Your task to perform on an android device: Open network settings Image 0: 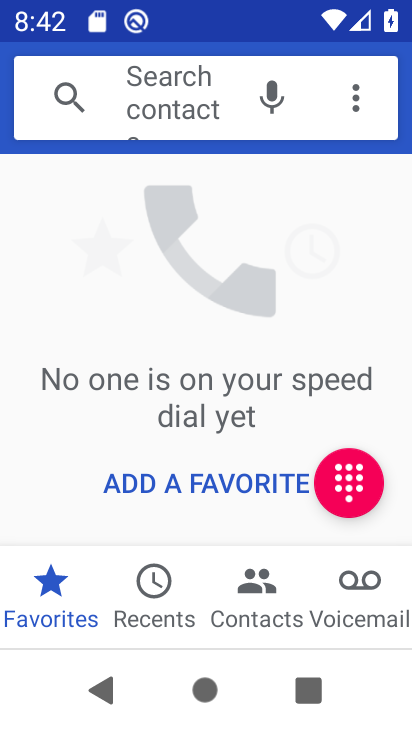
Step 0: press home button
Your task to perform on an android device: Open network settings Image 1: 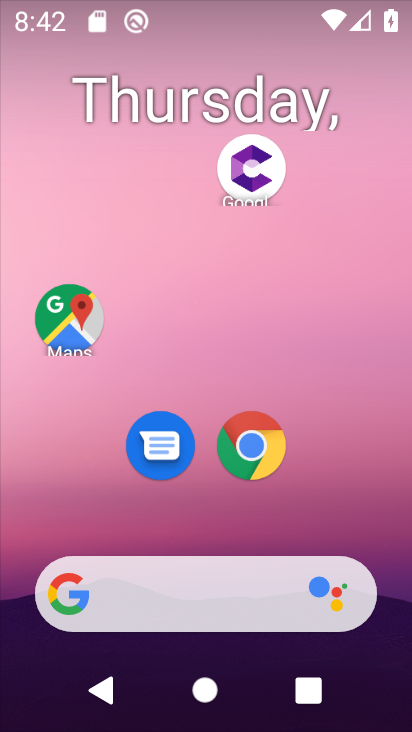
Step 1: drag from (218, 409) to (214, 6)
Your task to perform on an android device: Open network settings Image 2: 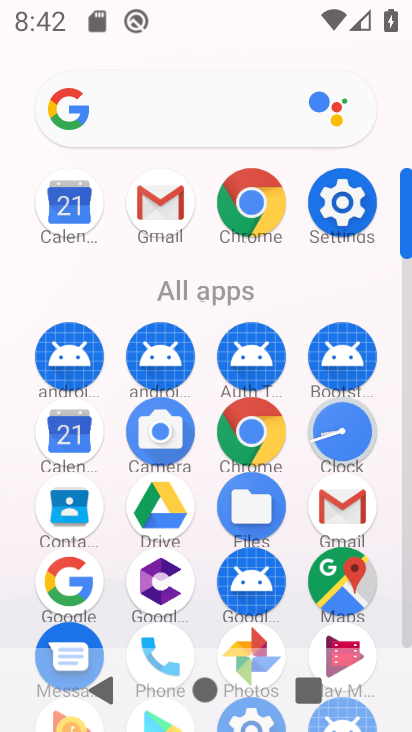
Step 2: click (346, 204)
Your task to perform on an android device: Open network settings Image 3: 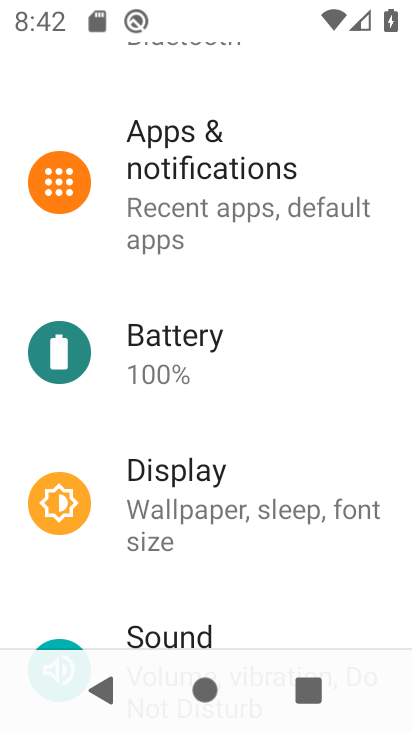
Step 3: drag from (261, 208) to (256, 567)
Your task to perform on an android device: Open network settings Image 4: 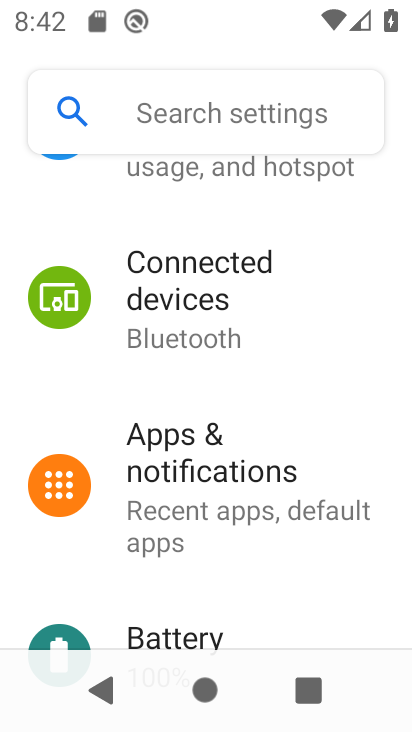
Step 4: drag from (237, 241) to (231, 712)
Your task to perform on an android device: Open network settings Image 5: 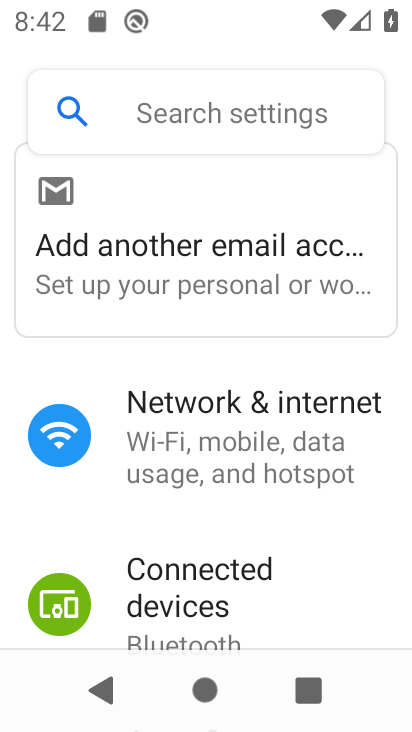
Step 5: click (265, 398)
Your task to perform on an android device: Open network settings Image 6: 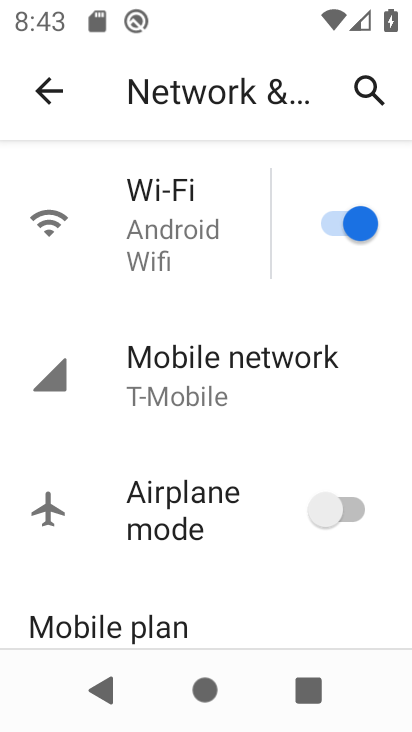
Step 6: click (273, 367)
Your task to perform on an android device: Open network settings Image 7: 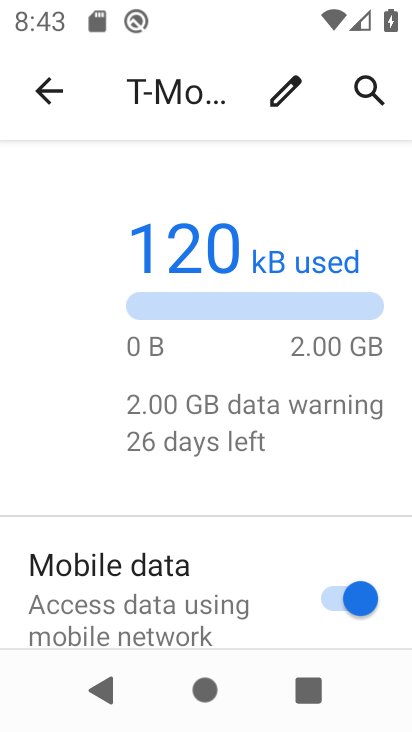
Step 7: task complete